Your task to perform on an android device: Open Chrome and go to settings Image 0: 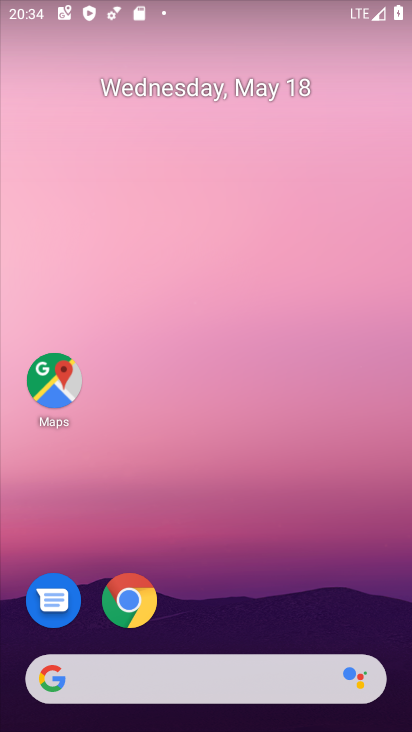
Step 0: click (133, 615)
Your task to perform on an android device: Open Chrome and go to settings Image 1: 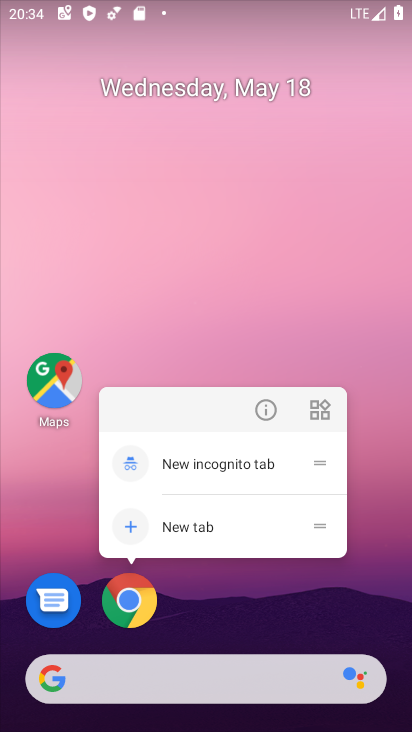
Step 1: click (140, 600)
Your task to perform on an android device: Open Chrome and go to settings Image 2: 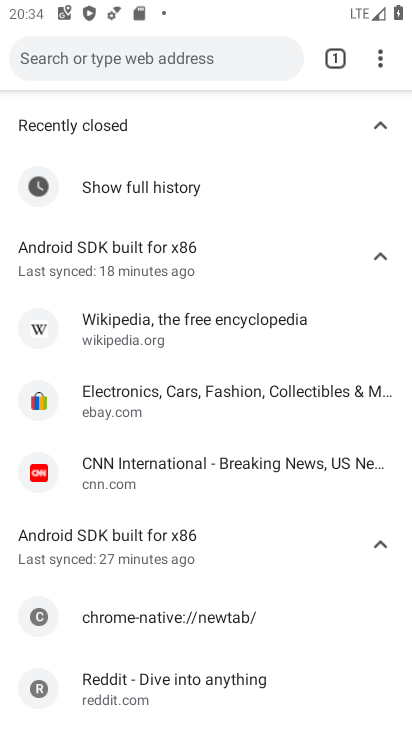
Step 2: task complete